Your task to perform on an android device: delete the emails in spam in the gmail app Image 0: 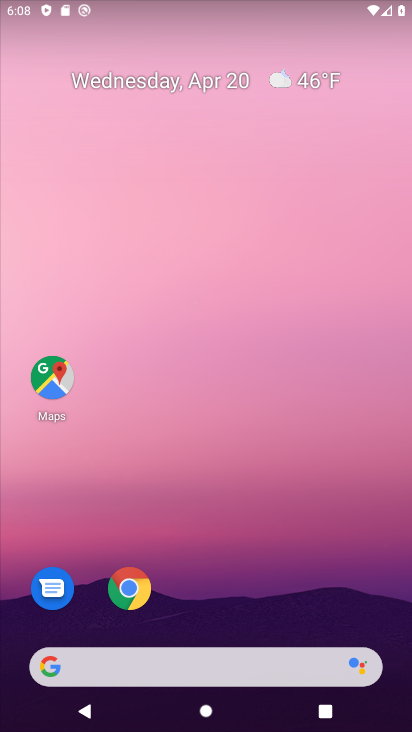
Step 0: drag from (323, 574) to (234, 64)
Your task to perform on an android device: delete the emails in spam in the gmail app Image 1: 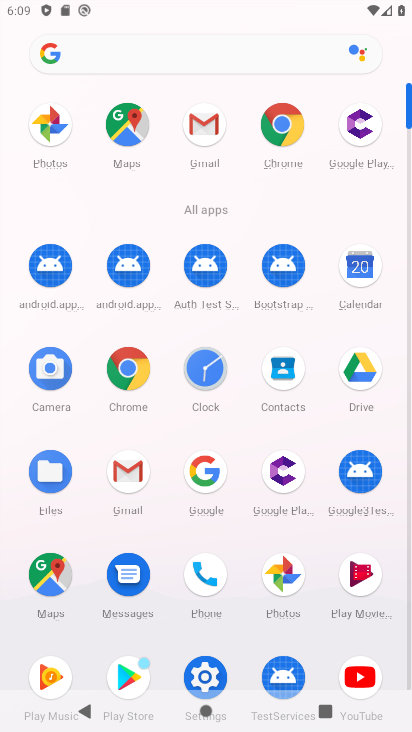
Step 1: click (119, 464)
Your task to perform on an android device: delete the emails in spam in the gmail app Image 2: 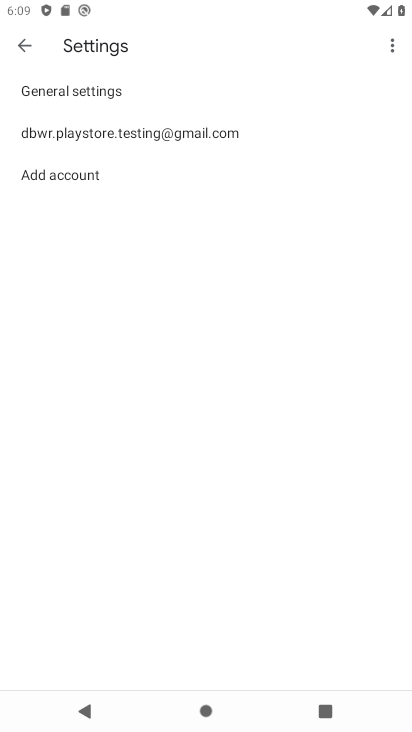
Step 2: click (185, 126)
Your task to perform on an android device: delete the emails in spam in the gmail app Image 3: 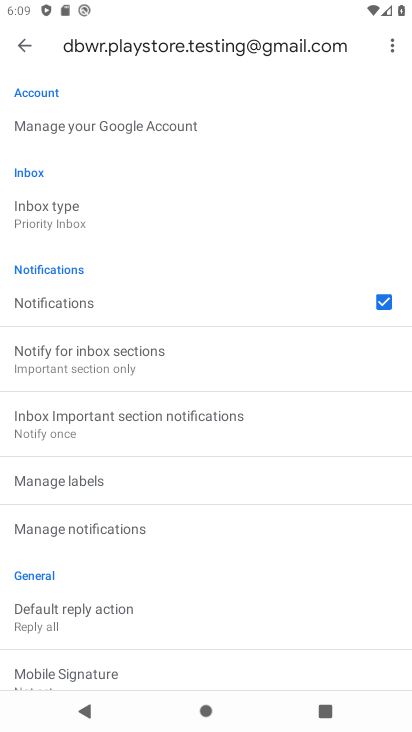
Step 3: drag from (312, 608) to (238, 116)
Your task to perform on an android device: delete the emails in spam in the gmail app Image 4: 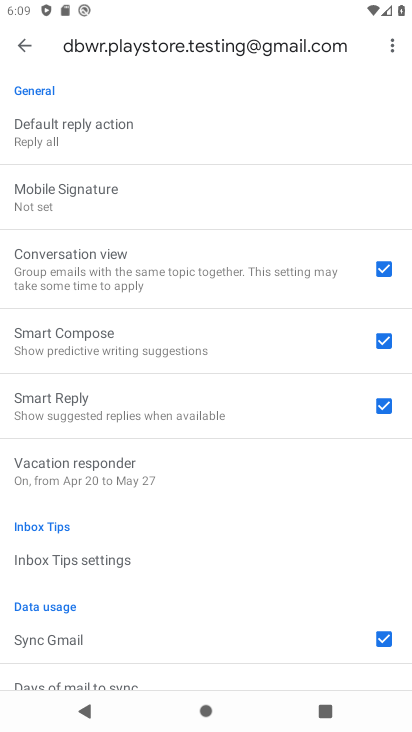
Step 4: click (27, 40)
Your task to perform on an android device: delete the emails in spam in the gmail app Image 5: 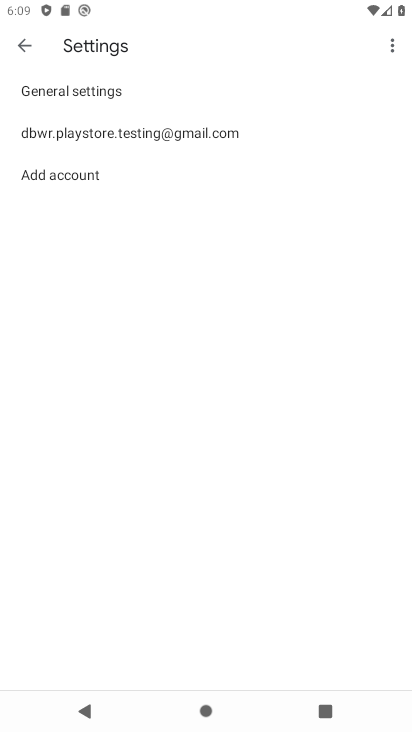
Step 5: click (24, 51)
Your task to perform on an android device: delete the emails in spam in the gmail app Image 6: 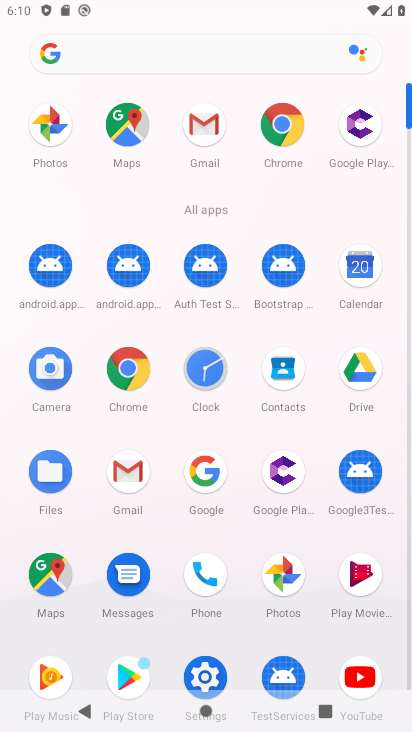
Step 6: click (127, 481)
Your task to perform on an android device: delete the emails in spam in the gmail app Image 7: 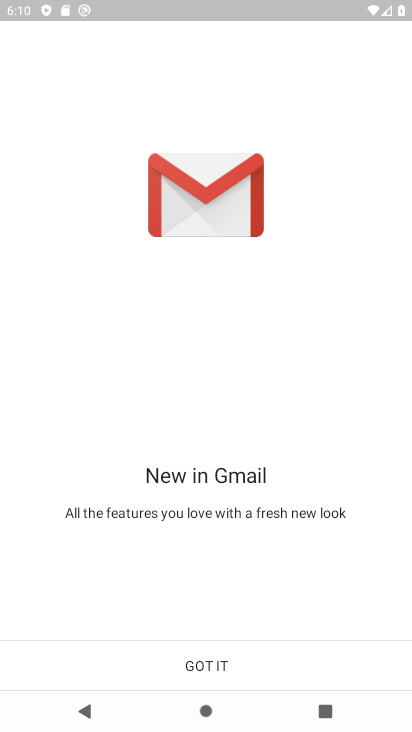
Step 7: click (214, 654)
Your task to perform on an android device: delete the emails in spam in the gmail app Image 8: 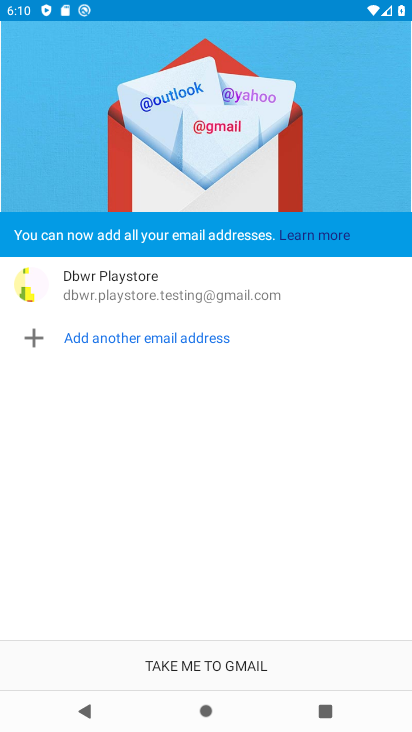
Step 8: click (250, 662)
Your task to perform on an android device: delete the emails in spam in the gmail app Image 9: 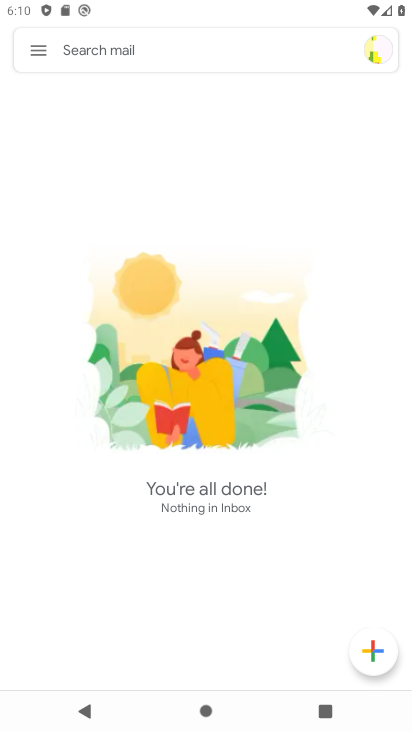
Step 9: click (27, 54)
Your task to perform on an android device: delete the emails in spam in the gmail app Image 10: 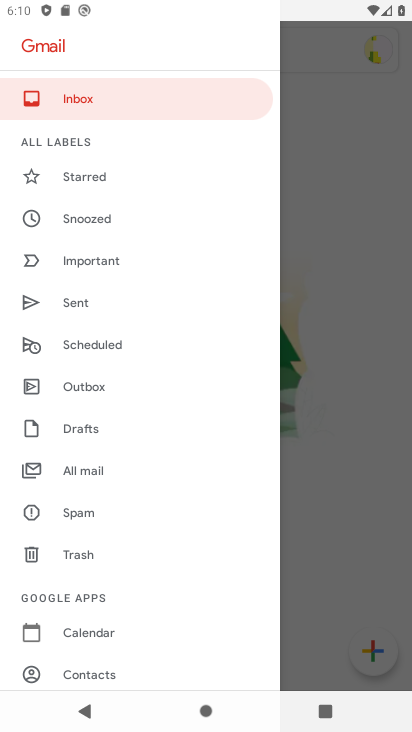
Step 10: click (110, 102)
Your task to perform on an android device: delete the emails in spam in the gmail app Image 11: 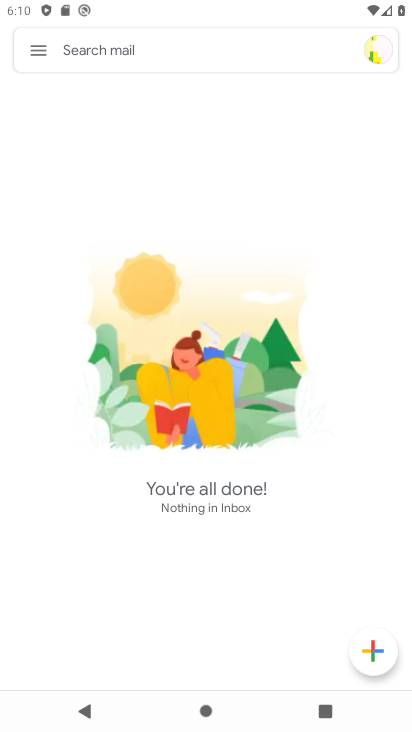
Step 11: task complete